Your task to perform on an android device: check battery use Image 0: 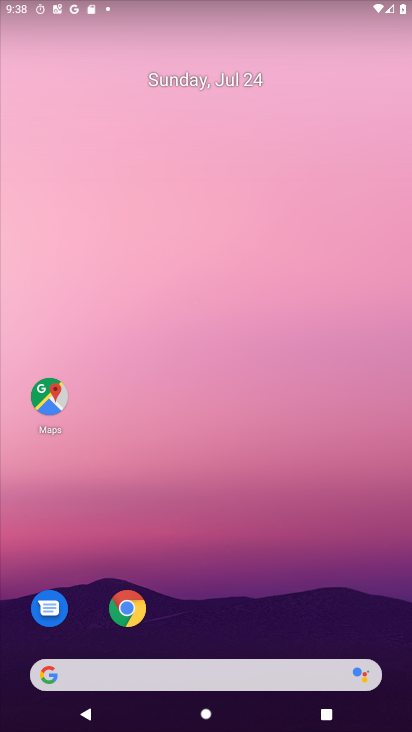
Step 0: drag from (247, 3) to (315, 549)
Your task to perform on an android device: check battery use Image 1: 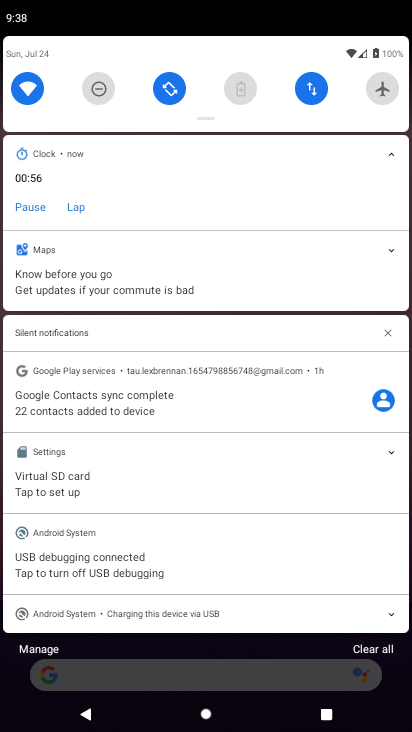
Step 1: click (239, 94)
Your task to perform on an android device: check battery use Image 2: 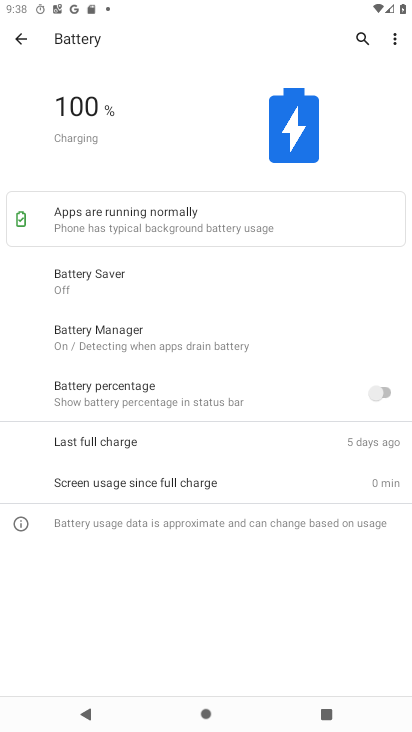
Step 2: click (405, 37)
Your task to perform on an android device: check battery use Image 3: 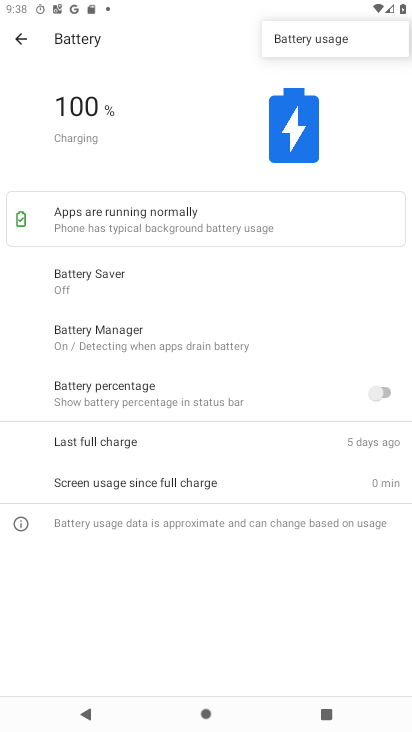
Step 3: click (329, 45)
Your task to perform on an android device: check battery use Image 4: 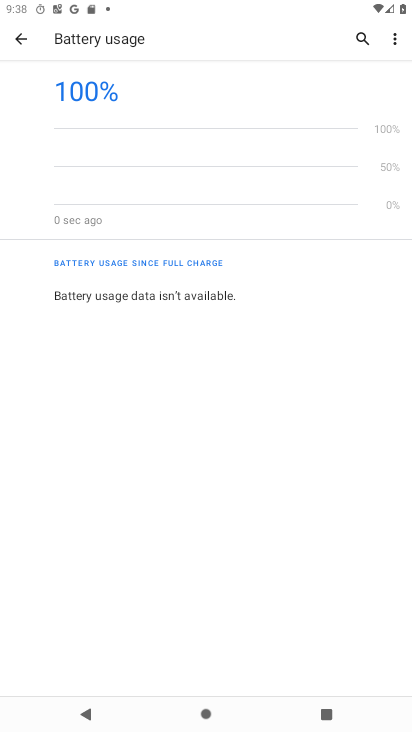
Step 4: task complete